Your task to perform on an android device: Search for sushi restaurants on Maps Image 0: 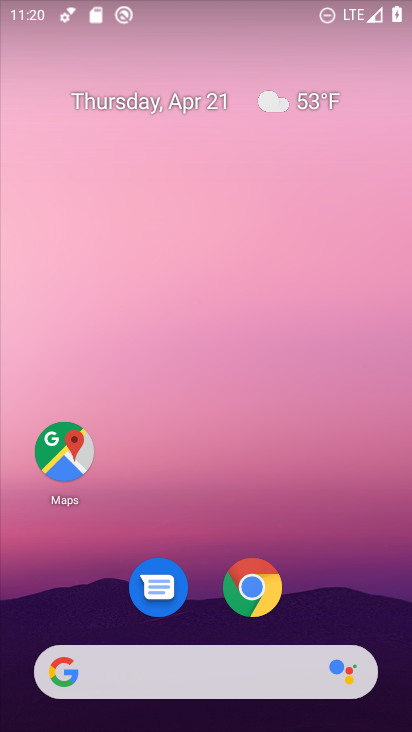
Step 0: click (61, 467)
Your task to perform on an android device: Search for sushi restaurants on Maps Image 1: 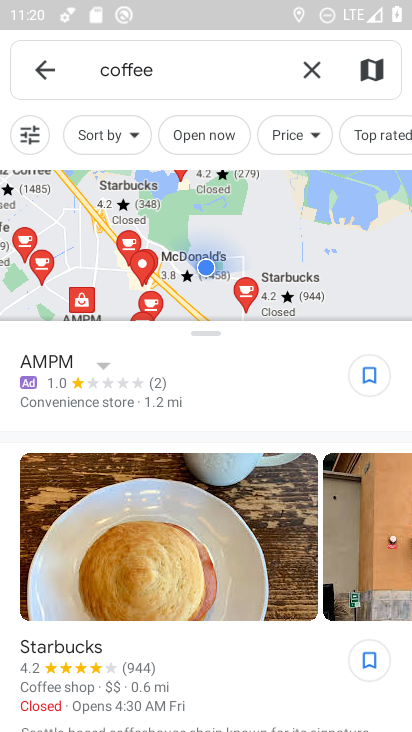
Step 1: click (318, 71)
Your task to perform on an android device: Search for sushi restaurants on Maps Image 2: 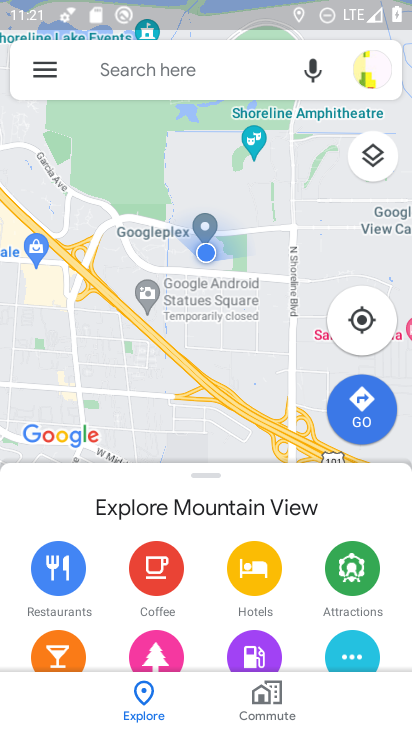
Step 2: click (167, 68)
Your task to perform on an android device: Search for sushi restaurants on Maps Image 3: 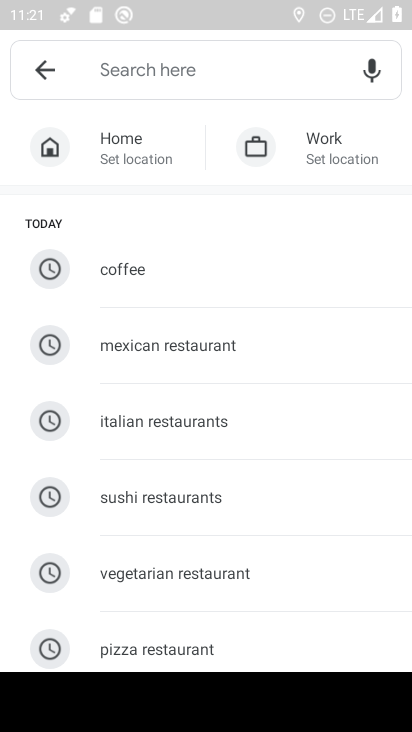
Step 3: click (188, 504)
Your task to perform on an android device: Search for sushi restaurants on Maps Image 4: 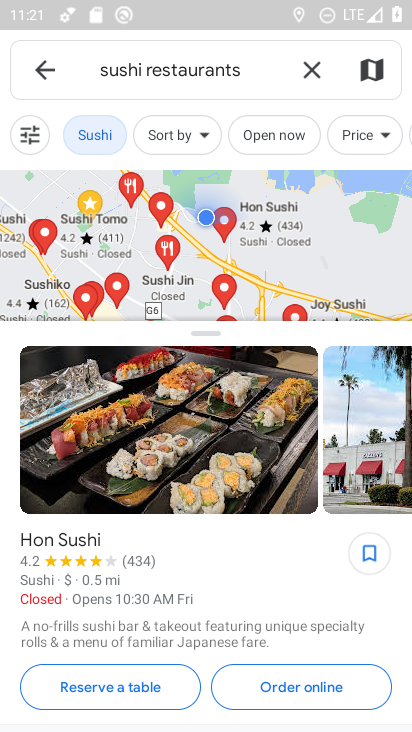
Step 4: task complete